Your task to perform on an android device: delete the emails in spam in the gmail app Image 0: 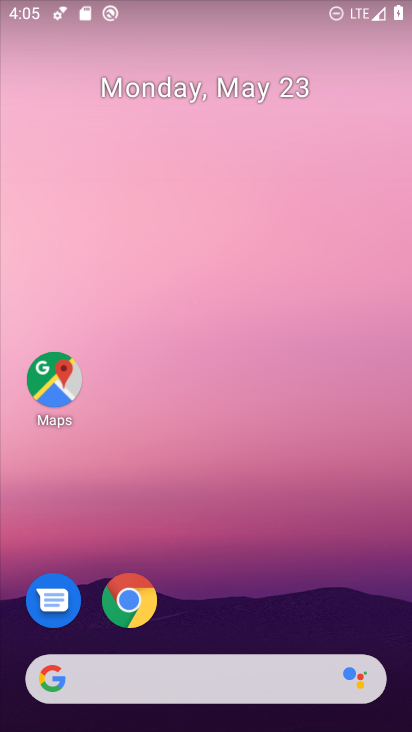
Step 0: drag from (255, 636) to (309, 22)
Your task to perform on an android device: delete the emails in spam in the gmail app Image 1: 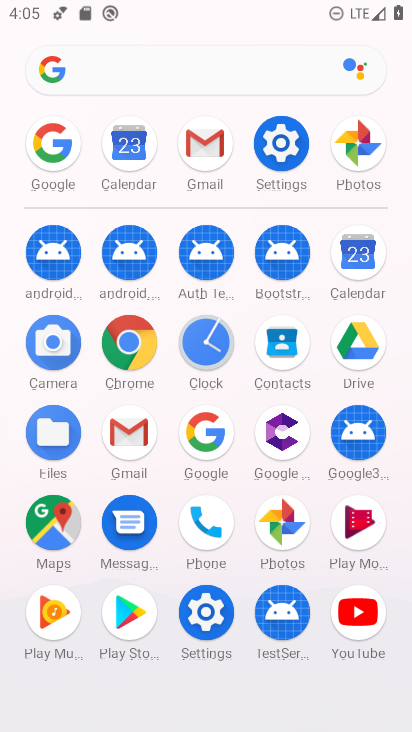
Step 1: click (127, 435)
Your task to perform on an android device: delete the emails in spam in the gmail app Image 2: 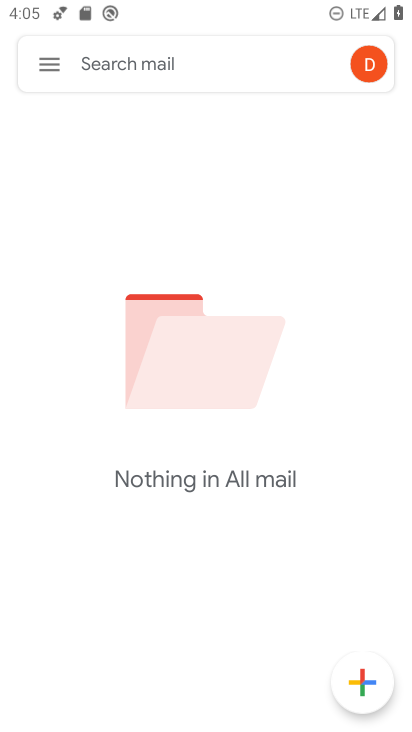
Step 2: click (46, 63)
Your task to perform on an android device: delete the emails in spam in the gmail app Image 3: 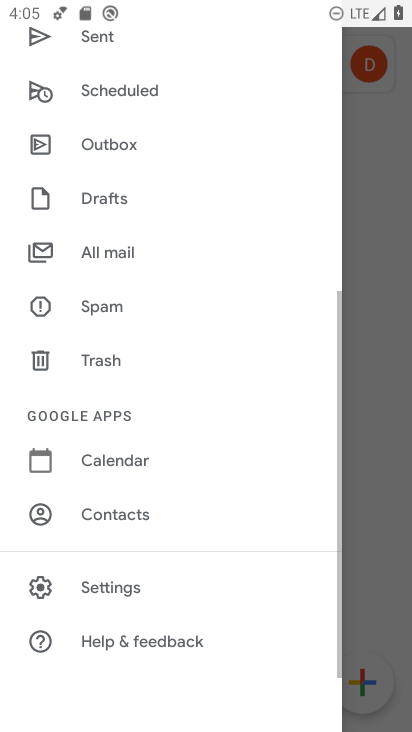
Step 3: click (97, 319)
Your task to perform on an android device: delete the emails in spam in the gmail app Image 4: 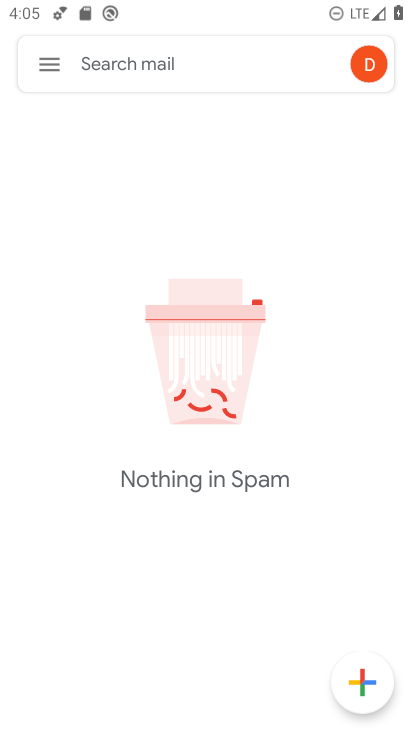
Step 4: task complete